Your task to perform on an android device: change the clock display to digital Image 0: 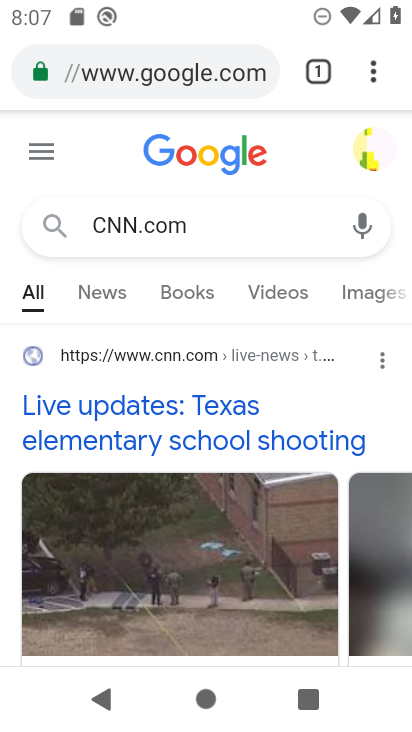
Step 0: press back button
Your task to perform on an android device: change the clock display to digital Image 1: 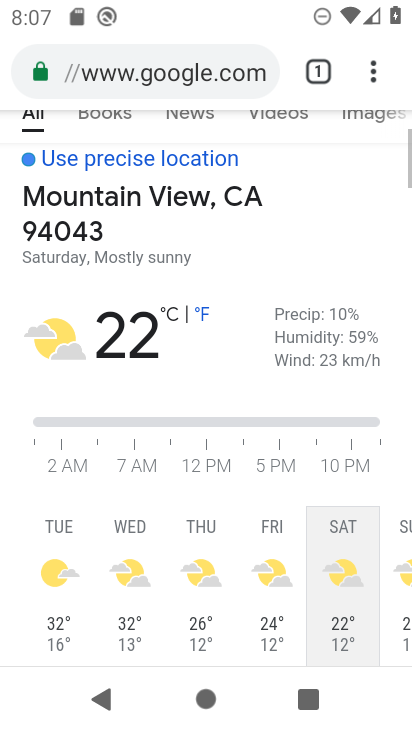
Step 1: press home button
Your task to perform on an android device: change the clock display to digital Image 2: 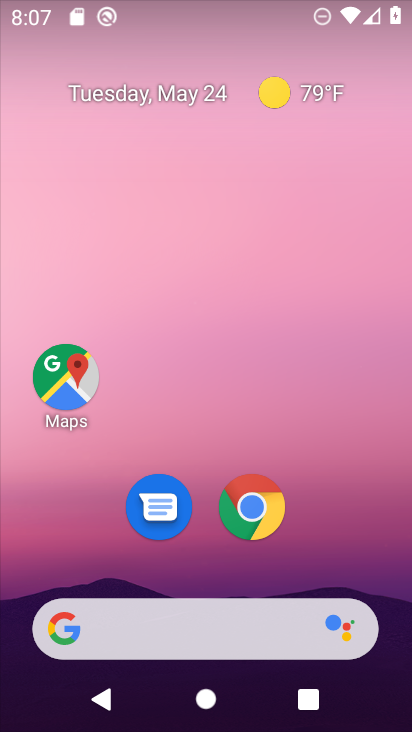
Step 2: drag from (323, 459) to (316, 37)
Your task to perform on an android device: change the clock display to digital Image 3: 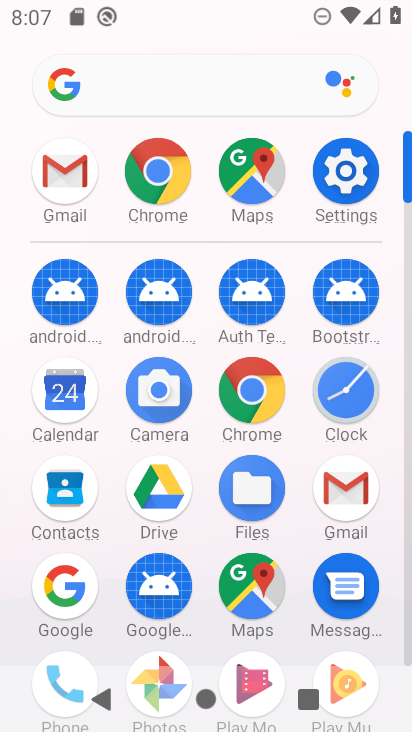
Step 3: drag from (12, 589) to (31, 287)
Your task to perform on an android device: change the clock display to digital Image 4: 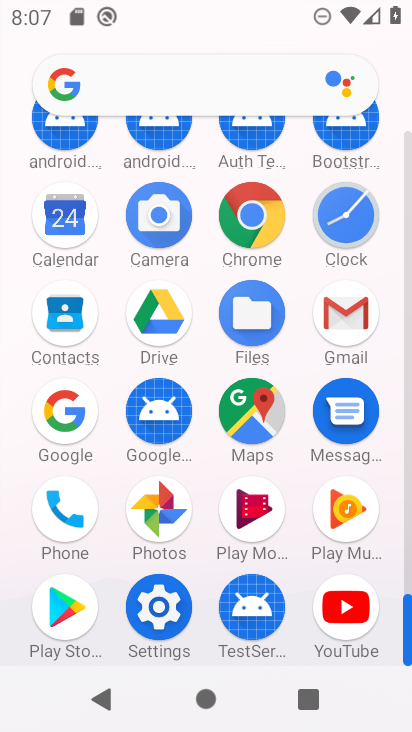
Step 4: click (346, 211)
Your task to perform on an android device: change the clock display to digital Image 5: 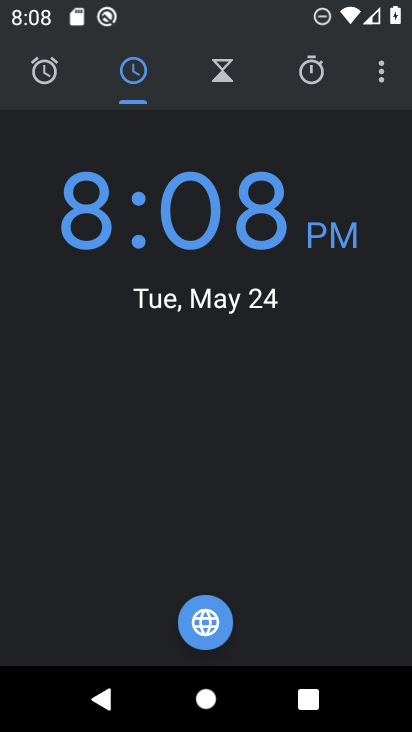
Step 5: task complete